Your task to perform on an android device: toggle improve location accuracy Image 0: 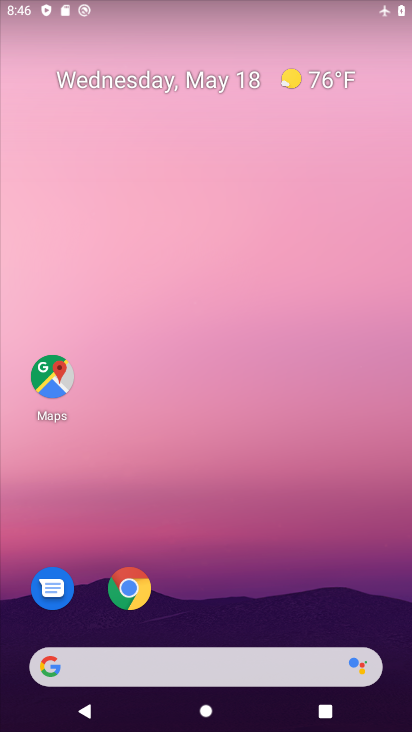
Step 0: drag from (283, 622) to (248, 78)
Your task to perform on an android device: toggle improve location accuracy Image 1: 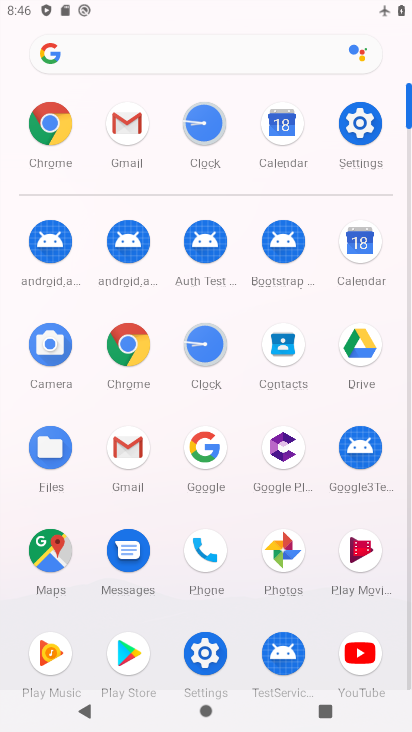
Step 1: click (368, 151)
Your task to perform on an android device: toggle improve location accuracy Image 2: 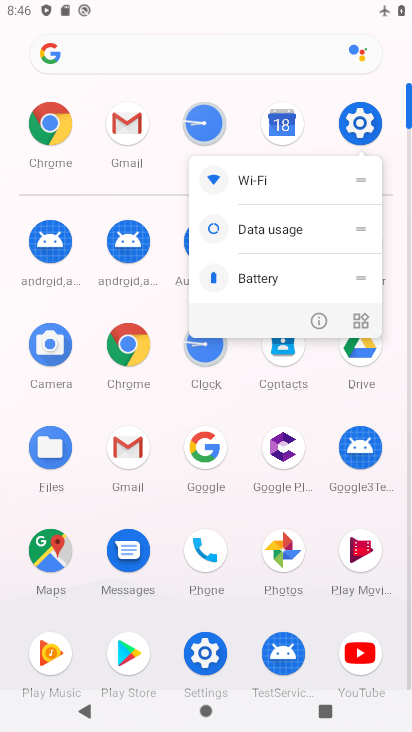
Step 2: click (362, 123)
Your task to perform on an android device: toggle improve location accuracy Image 3: 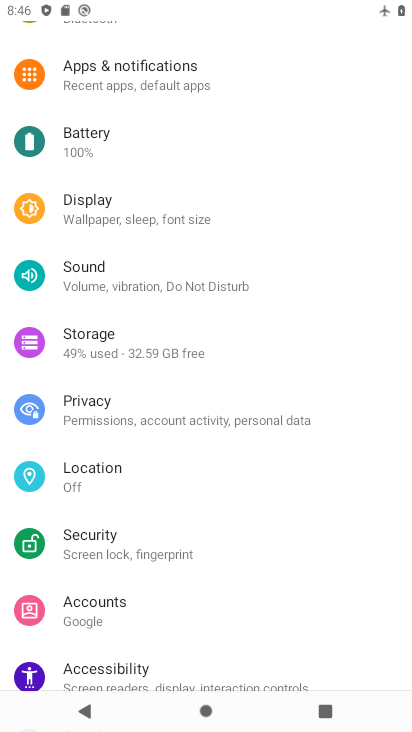
Step 3: drag from (195, 616) to (203, 464)
Your task to perform on an android device: toggle improve location accuracy Image 4: 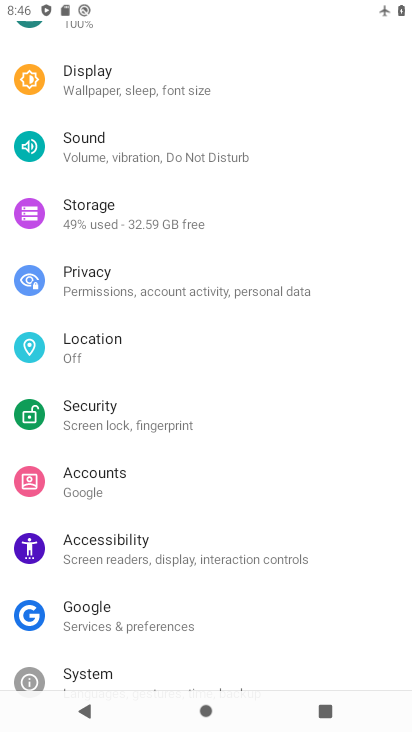
Step 4: click (195, 354)
Your task to perform on an android device: toggle improve location accuracy Image 5: 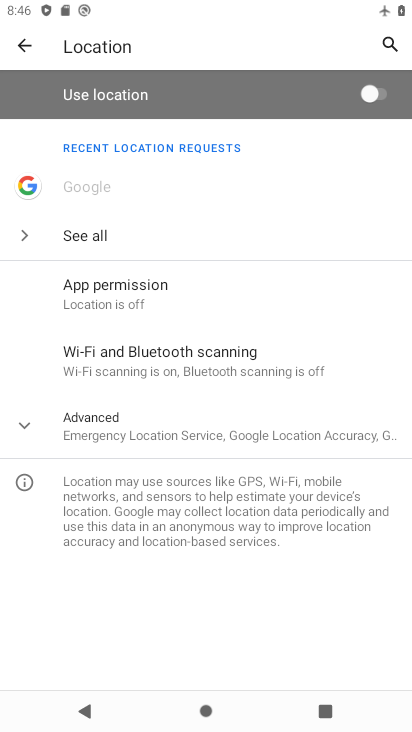
Step 5: click (201, 403)
Your task to perform on an android device: toggle improve location accuracy Image 6: 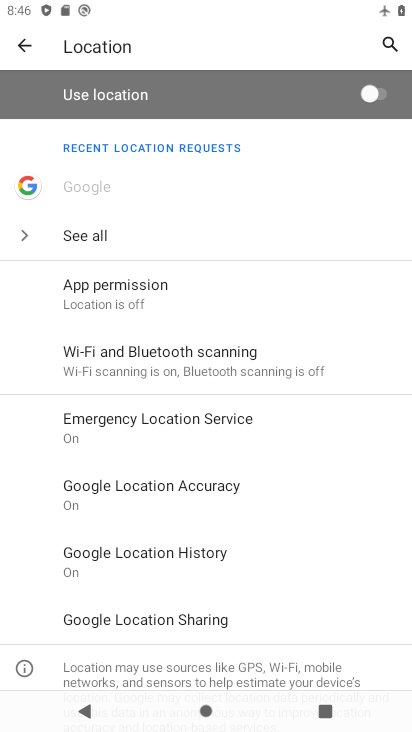
Step 6: click (246, 494)
Your task to perform on an android device: toggle improve location accuracy Image 7: 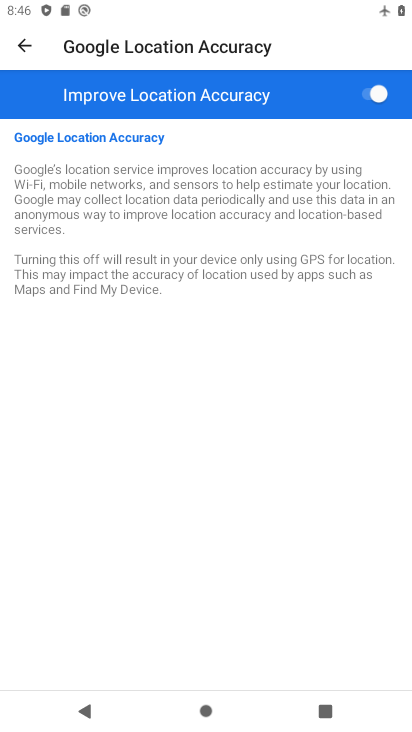
Step 7: click (363, 98)
Your task to perform on an android device: toggle improve location accuracy Image 8: 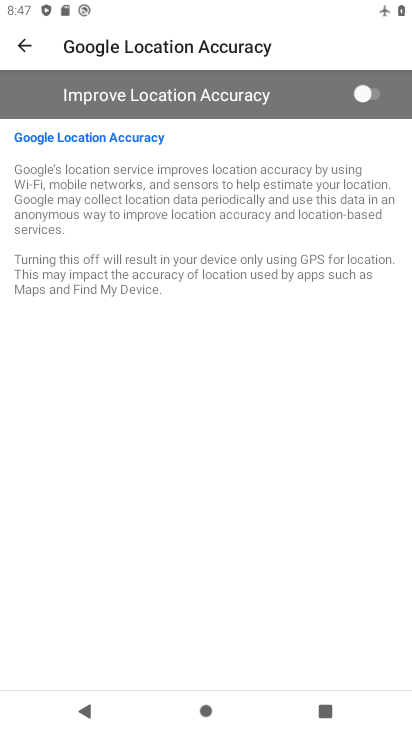
Step 8: press home button
Your task to perform on an android device: toggle improve location accuracy Image 9: 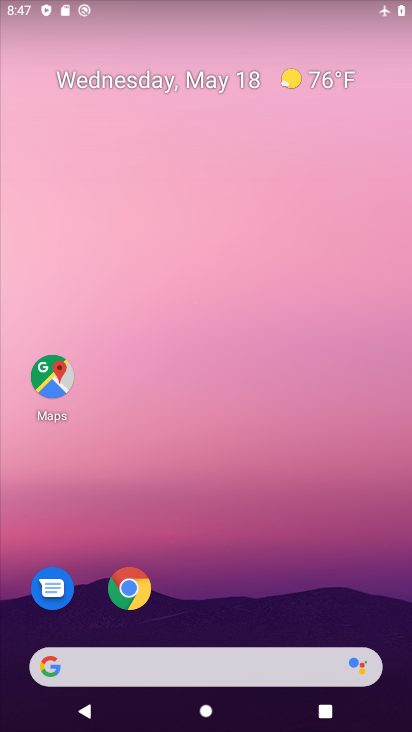
Step 9: drag from (270, 603) to (265, 206)
Your task to perform on an android device: toggle improve location accuracy Image 10: 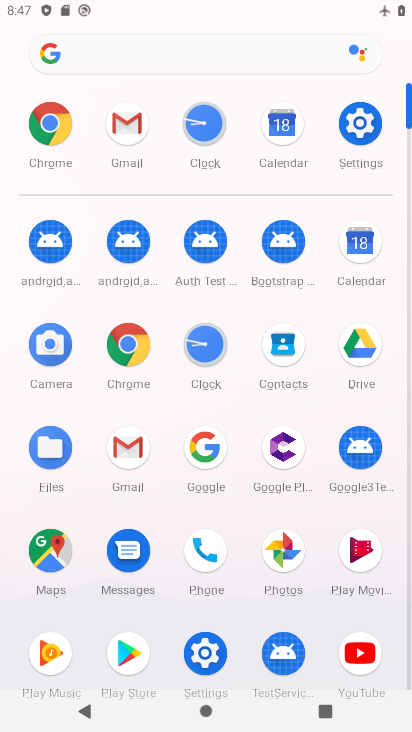
Step 10: click (380, 134)
Your task to perform on an android device: toggle improve location accuracy Image 11: 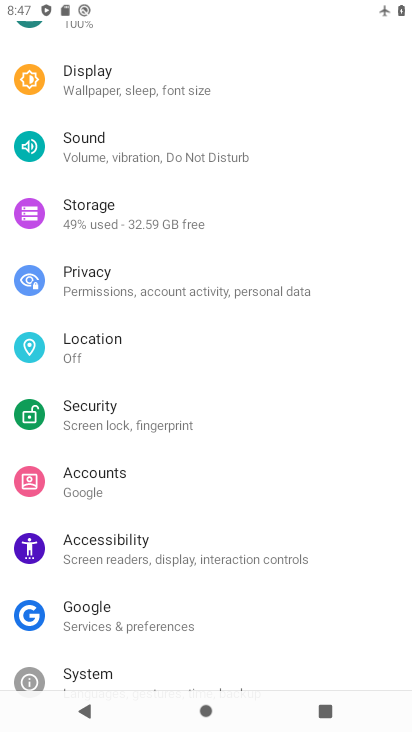
Step 11: click (155, 333)
Your task to perform on an android device: toggle improve location accuracy Image 12: 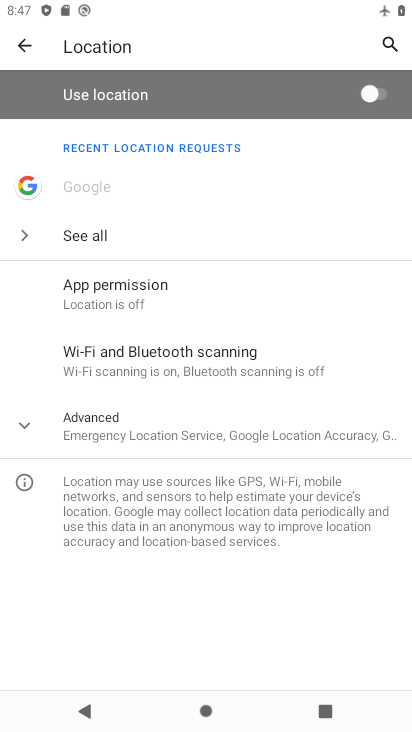
Step 12: click (366, 98)
Your task to perform on an android device: toggle improve location accuracy Image 13: 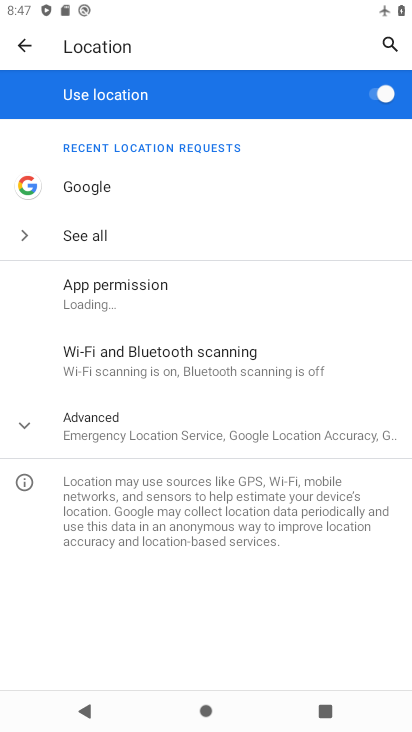
Step 13: click (195, 445)
Your task to perform on an android device: toggle improve location accuracy Image 14: 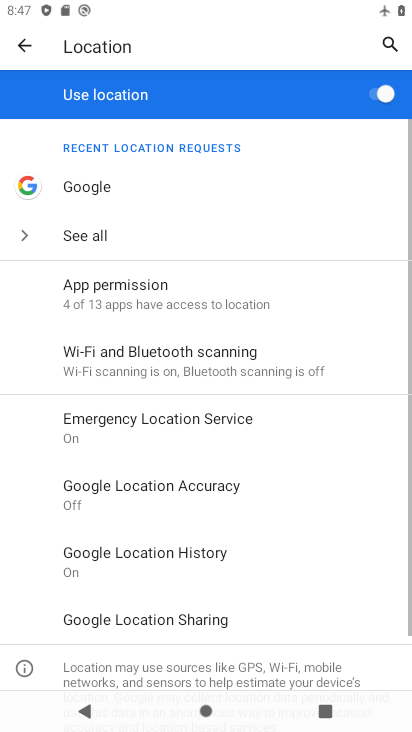
Step 14: click (202, 484)
Your task to perform on an android device: toggle improve location accuracy Image 15: 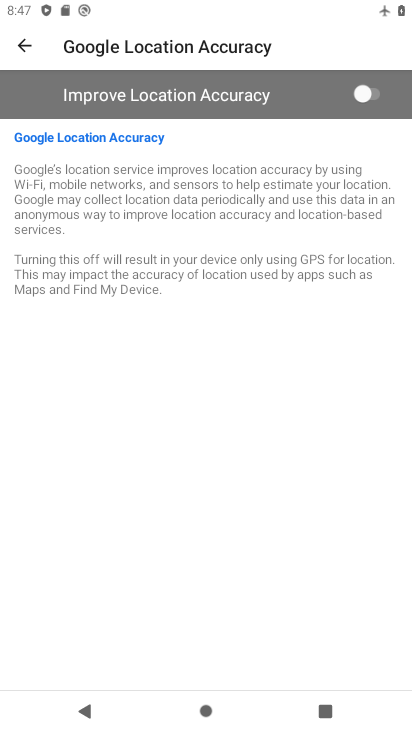
Step 15: click (380, 100)
Your task to perform on an android device: toggle improve location accuracy Image 16: 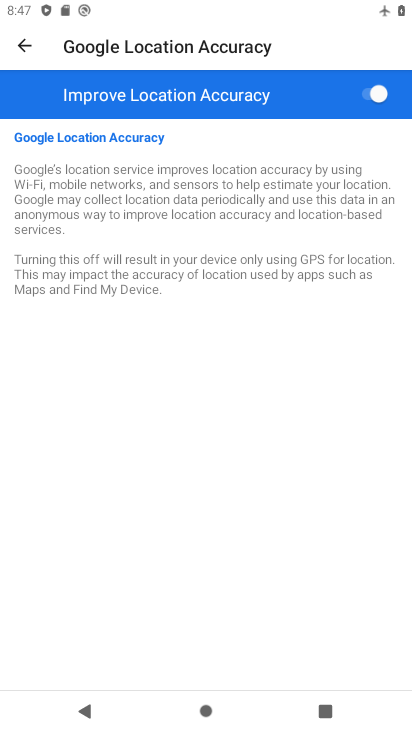
Step 16: task complete